Your task to perform on an android device: turn on improve location accuracy Image 0: 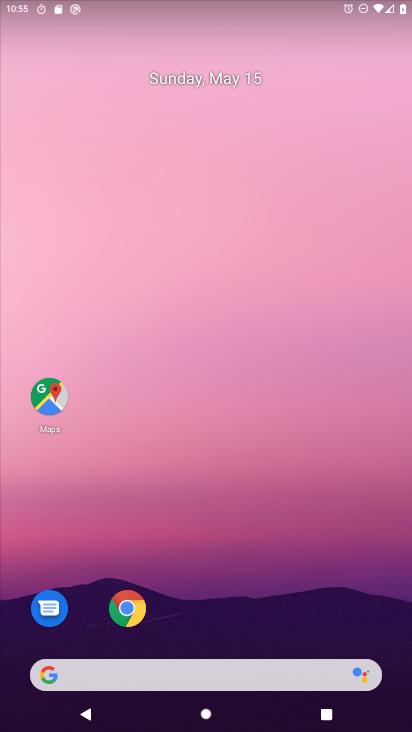
Step 0: drag from (255, 523) to (271, 116)
Your task to perform on an android device: turn on improve location accuracy Image 1: 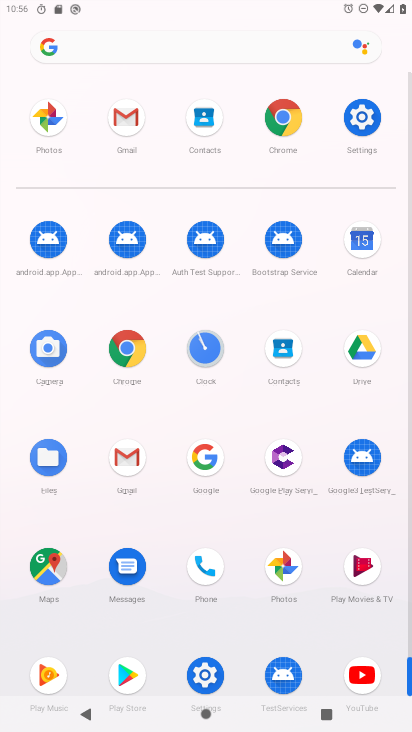
Step 1: click (367, 132)
Your task to perform on an android device: turn on improve location accuracy Image 2: 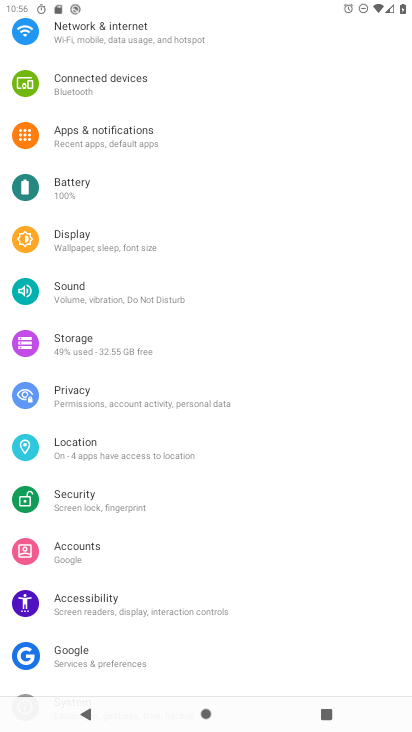
Step 2: drag from (204, 249) to (193, 608)
Your task to perform on an android device: turn on improve location accuracy Image 3: 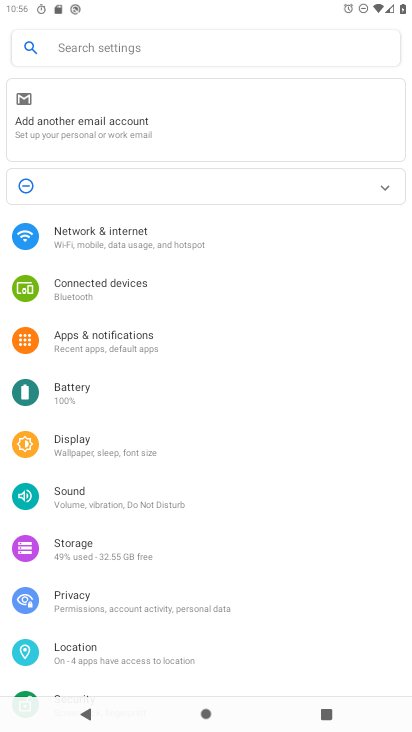
Step 3: click (135, 654)
Your task to perform on an android device: turn on improve location accuracy Image 4: 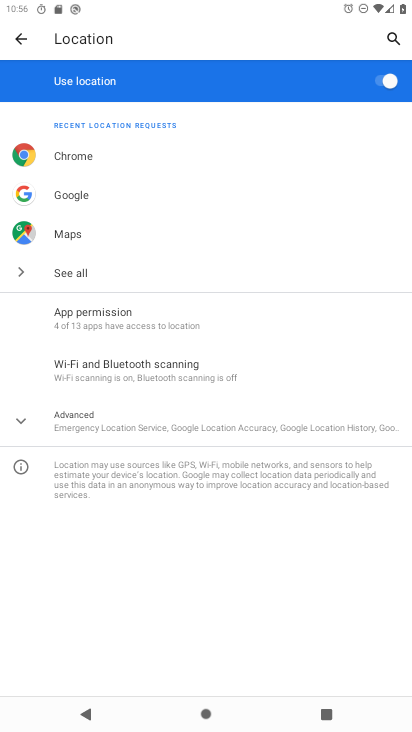
Step 4: click (124, 429)
Your task to perform on an android device: turn on improve location accuracy Image 5: 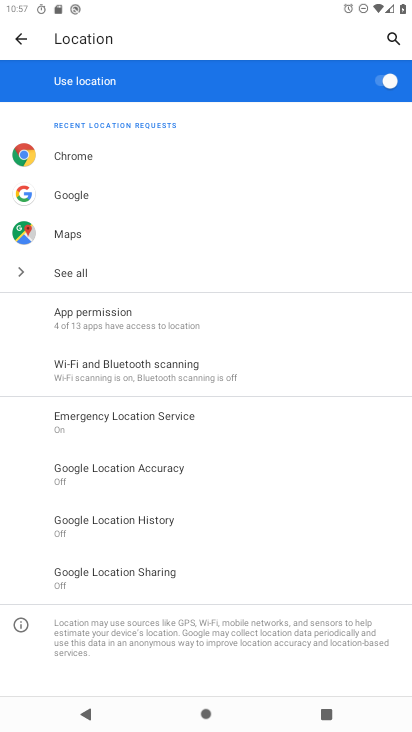
Step 5: click (60, 461)
Your task to perform on an android device: turn on improve location accuracy Image 6: 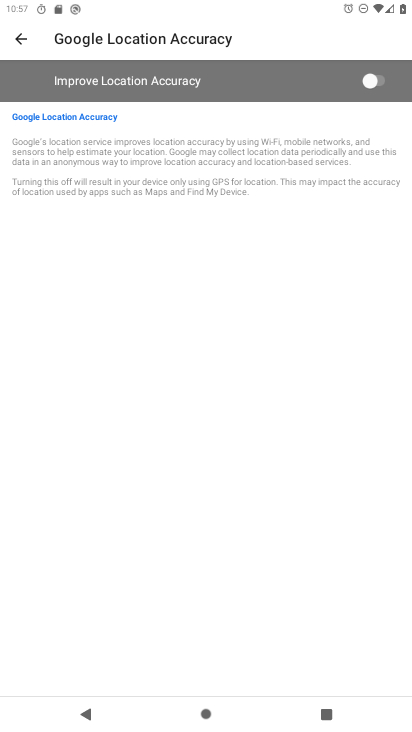
Step 6: click (382, 84)
Your task to perform on an android device: turn on improve location accuracy Image 7: 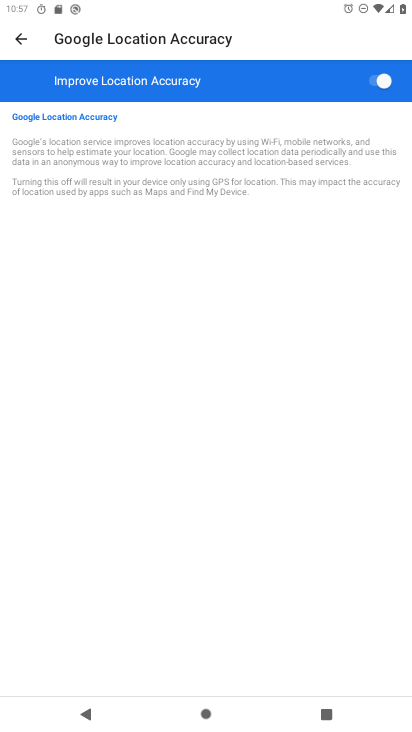
Step 7: task complete